Your task to perform on an android device: toggle airplane mode Image 0: 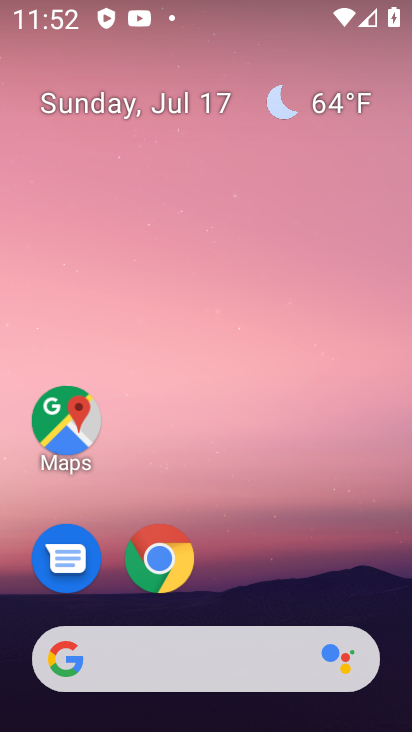
Step 0: drag from (365, 592) to (387, 189)
Your task to perform on an android device: toggle airplane mode Image 1: 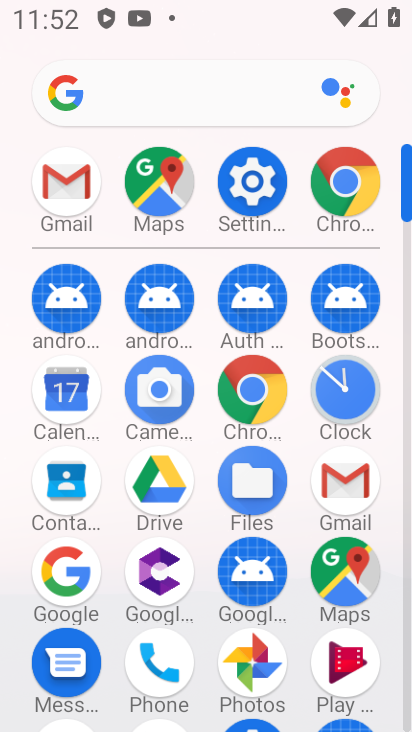
Step 1: click (264, 201)
Your task to perform on an android device: toggle airplane mode Image 2: 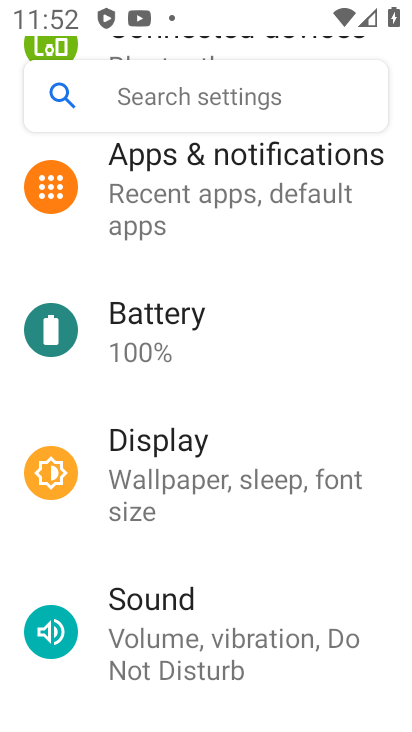
Step 2: drag from (339, 379) to (341, 310)
Your task to perform on an android device: toggle airplane mode Image 3: 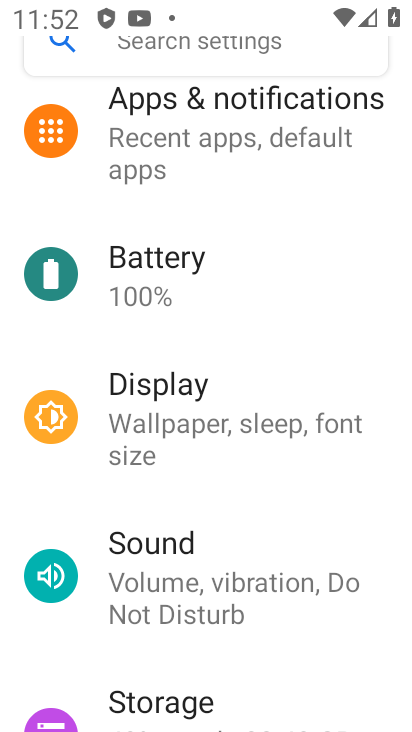
Step 3: click (344, 413)
Your task to perform on an android device: toggle airplane mode Image 4: 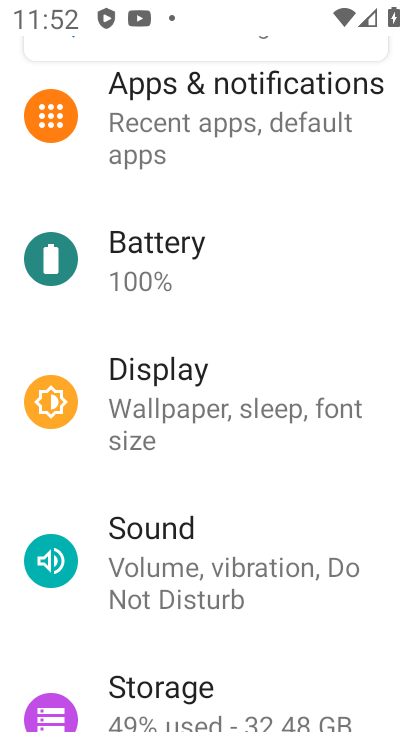
Step 4: drag from (336, 422) to (338, 371)
Your task to perform on an android device: toggle airplane mode Image 5: 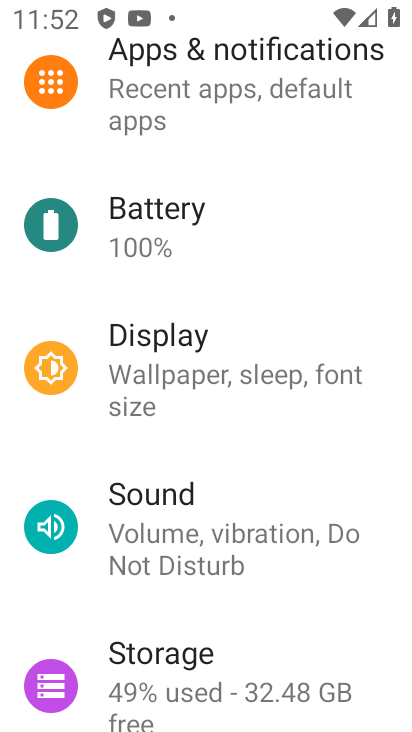
Step 5: drag from (345, 474) to (341, 412)
Your task to perform on an android device: toggle airplane mode Image 6: 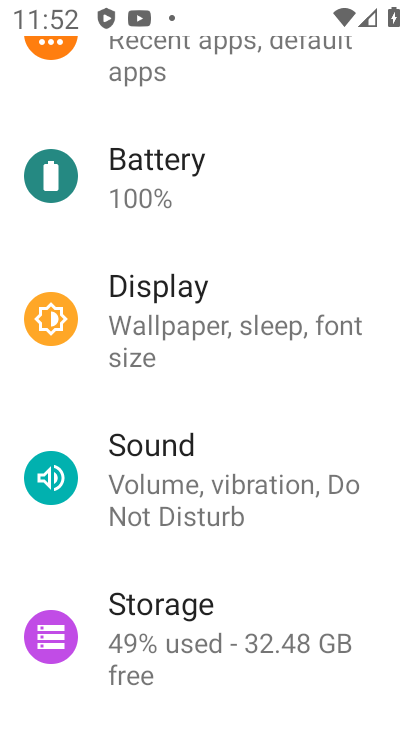
Step 6: drag from (348, 495) to (350, 437)
Your task to perform on an android device: toggle airplane mode Image 7: 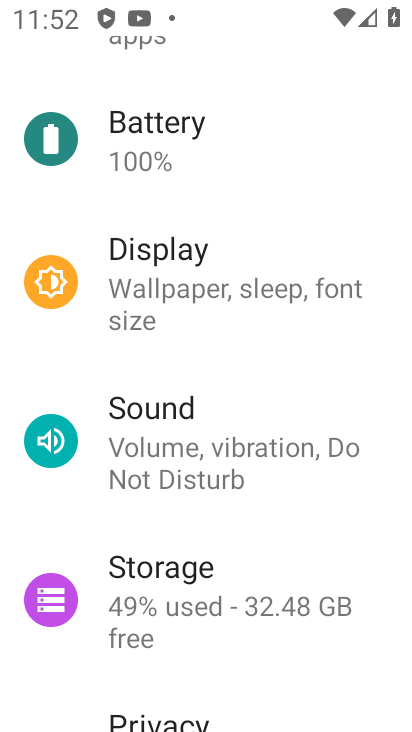
Step 7: drag from (351, 517) to (354, 450)
Your task to perform on an android device: toggle airplane mode Image 8: 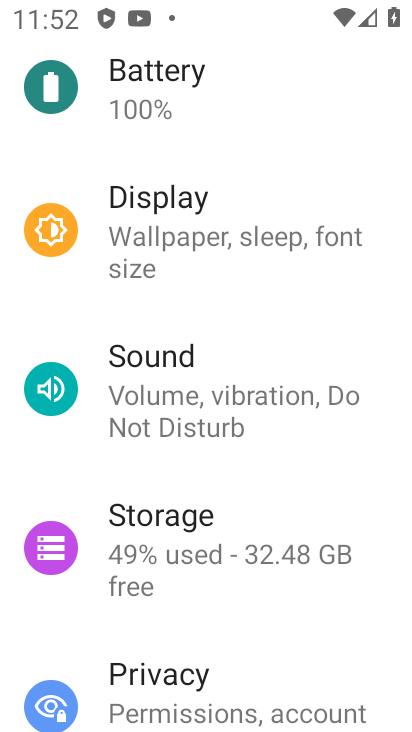
Step 8: drag from (345, 507) to (348, 437)
Your task to perform on an android device: toggle airplane mode Image 9: 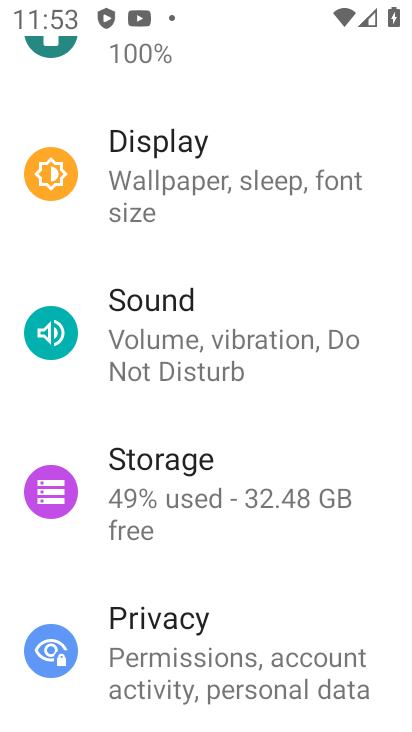
Step 9: drag from (343, 517) to (344, 434)
Your task to perform on an android device: toggle airplane mode Image 10: 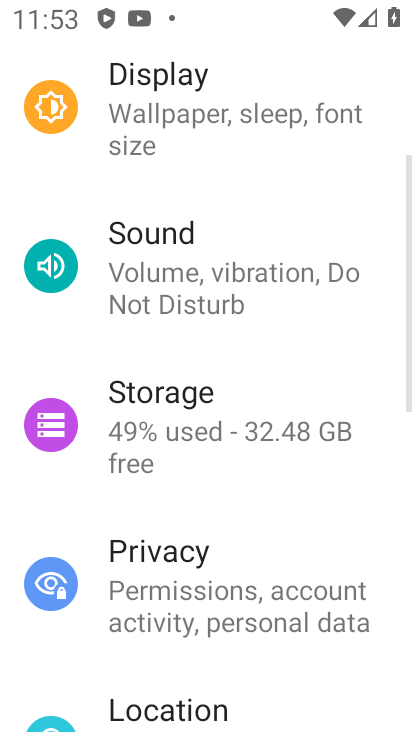
Step 10: drag from (345, 377) to (346, 460)
Your task to perform on an android device: toggle airplane mode Image 11: 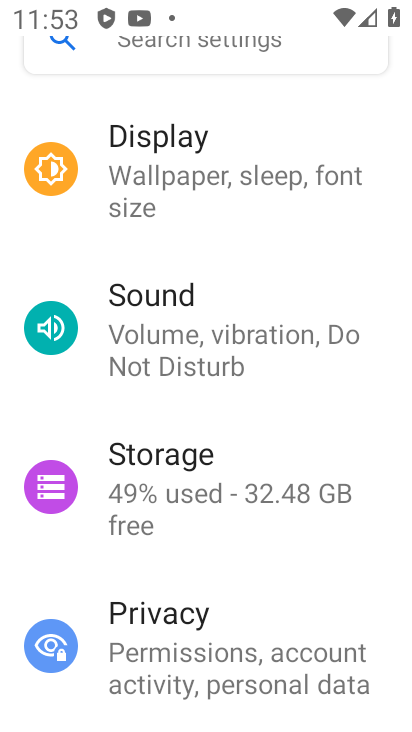
Step 11: click (344, 336)
Your task to perform on an android device: toggle airplane mode Image 12: 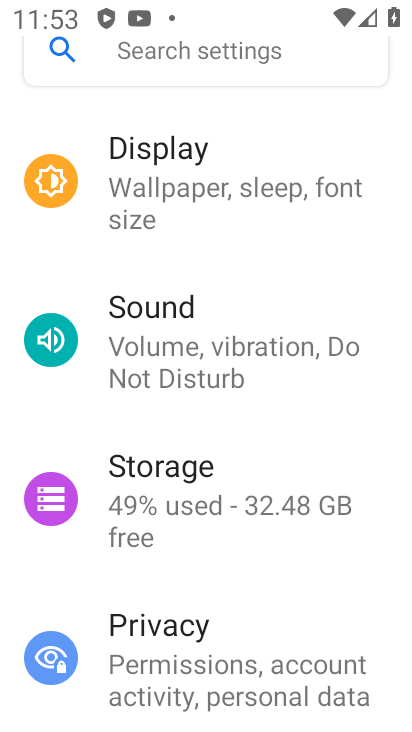
Step 12: drag from (350, 338) to (352, 404)
Your task to perform on an android device: toggle airplane mode Image 13: 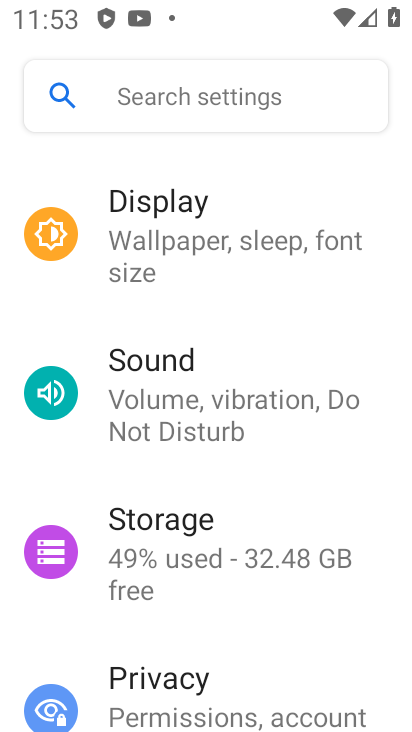
Step 13: drag from (361, 284) to (365, 367)
Your task to perform on an android device: toggle airplane mode Image 14: 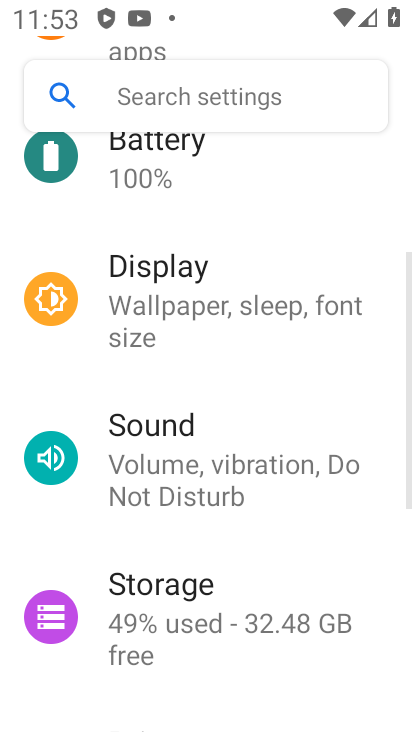
Step 14: drag from (365, 234) to (363, 336)
Your task to perform on an android device: toggle airplane mode Image 15: 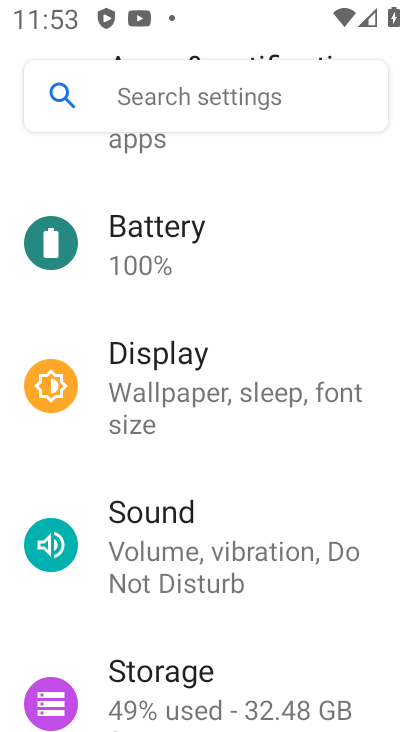
Step 15: click (366, 298)
Your task to perform on an android device: toggle airplane mode Image 16: 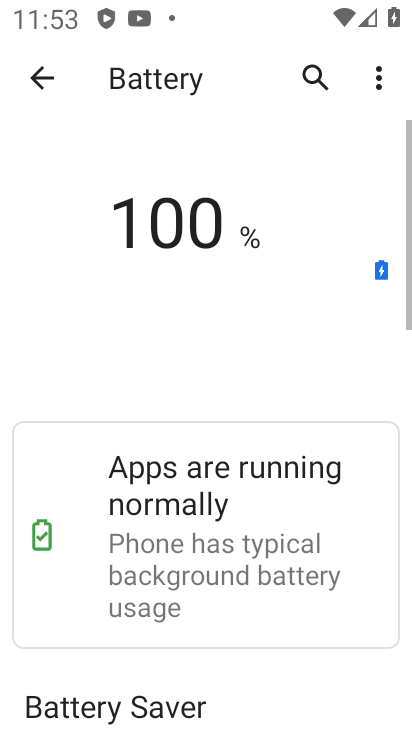
Step 16: drag from (368, 228) to (369, 302)
Your task to perform on an android device: toggle airplane mode Image 17: 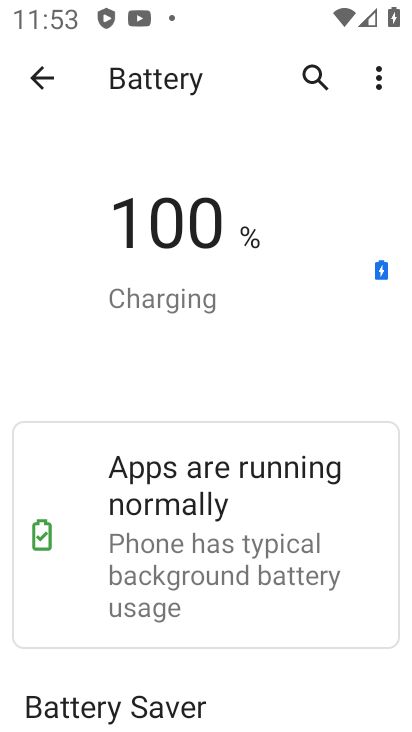
Step 17: click (36, 67)
Your task to perform on an android device: toggle airplane mode Image 18: 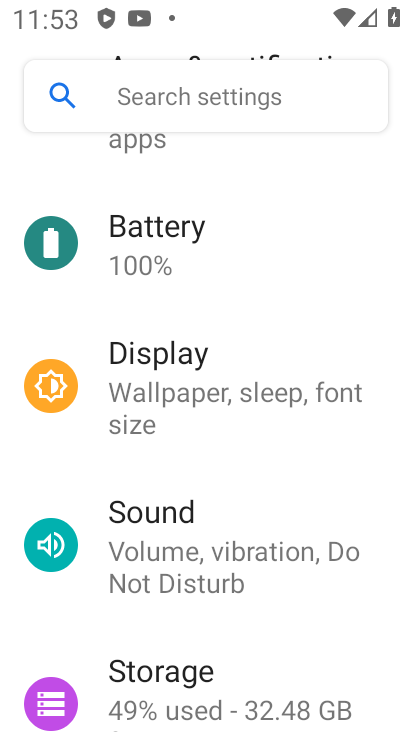
Step 18: drag from (343, 209) to (344, 314)
Your task to perform on an android device: toggle airplane mode Image 19: 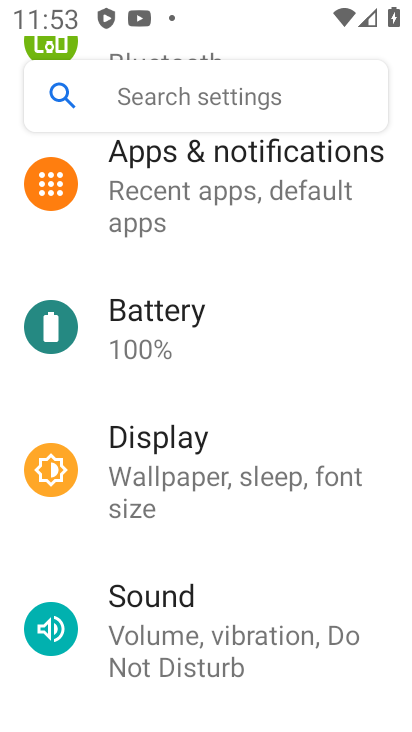
Step 19: drag from (345, 189) to (344, 299)
Your task to perform on an android device: toggle airplane mode Image 20: 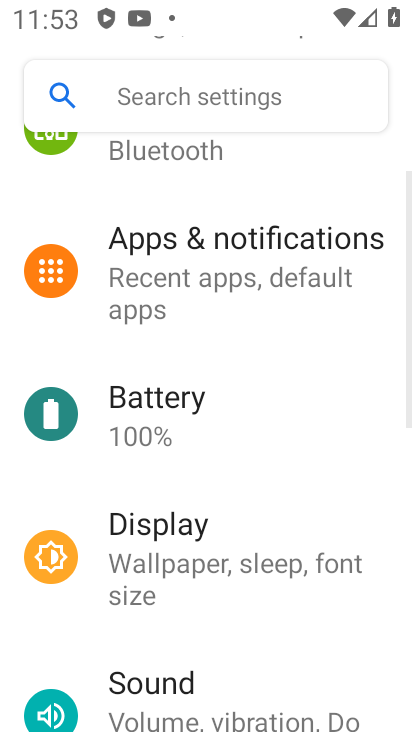
Step 20: drag from (344, 211) to (345, 321)
Your task to perform on an android device: toggle airplane mode Image 21: 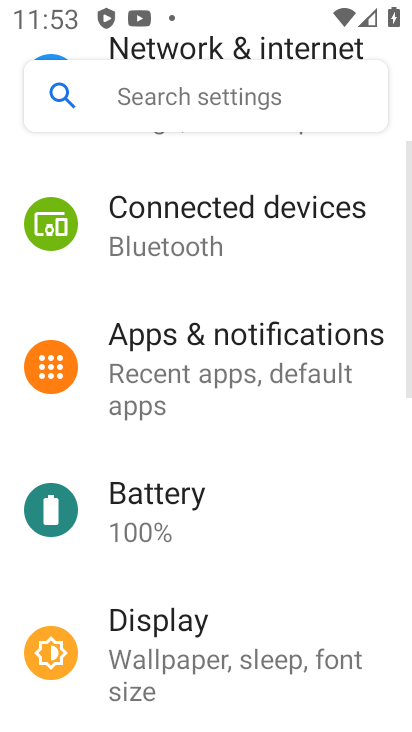
Step 21: drag from (343, 235) to (343, 315)
Your task to perform on an android device: toggle airplane mode Image 22: 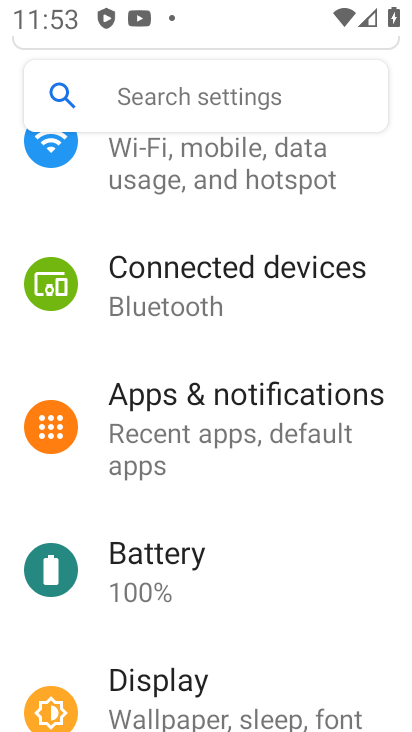
Step 22: click (343, 303)
Your task to perform on an android device: toggle airplane mode Image 23: 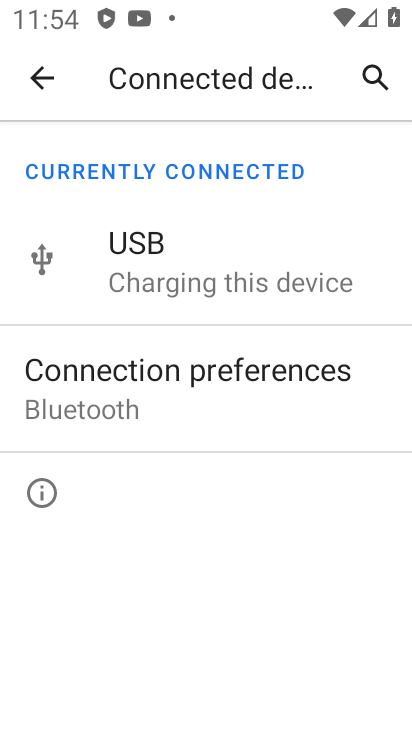
Step 23: press home button
Your task to perform on an android device: toggle airplane mode Image 24: 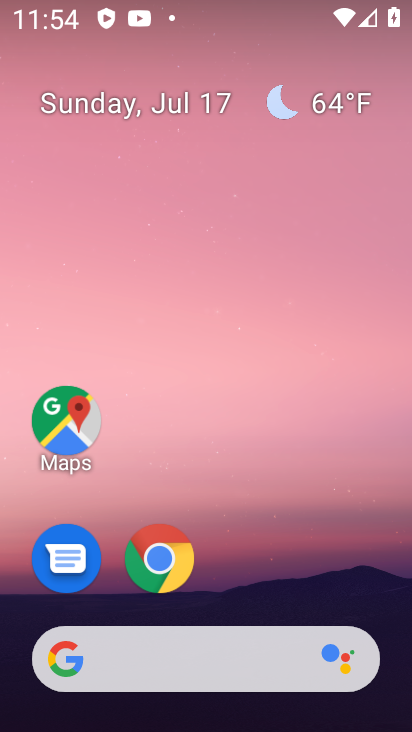
Step 24: drag from (359, 550) to (357, 97)
Your task to perform on an android device: toggle airplane mode Image 25: 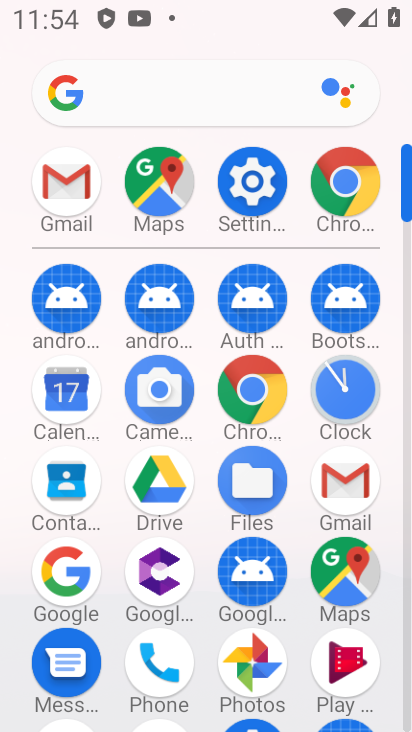
Step 25: click (245, 189)
Your task to perform on an android device: toggle airplane mode Image 26: 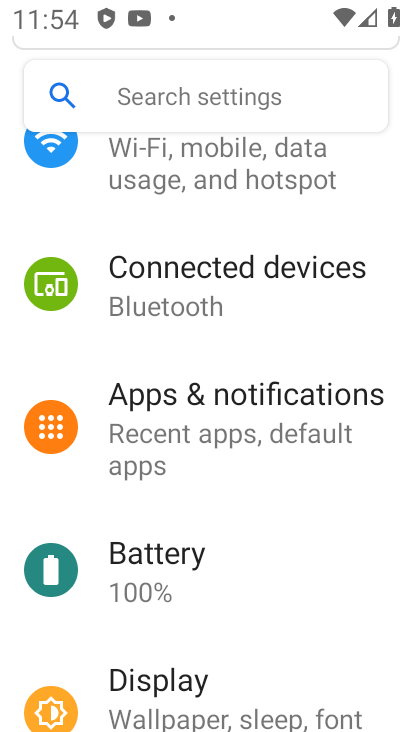
Step 26: drag from (374, 254) to (385, 359)
Your task to perform on an android device: toggle airplane mode Image 27: 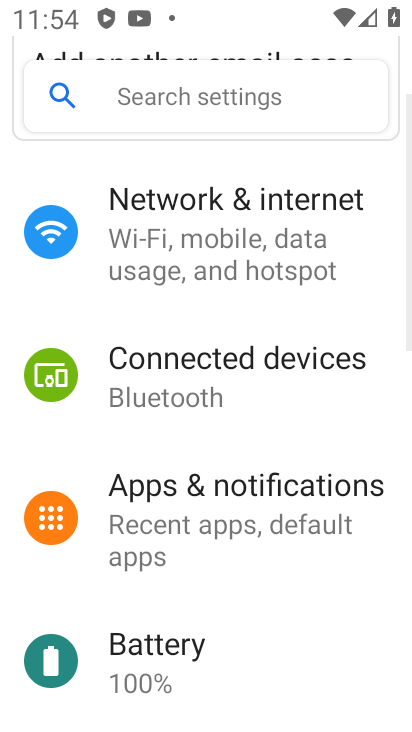
Step 27: drag from (379, 265) to (381, 320)
Your task to perform on an android device: toggle airplane mode Image 28: 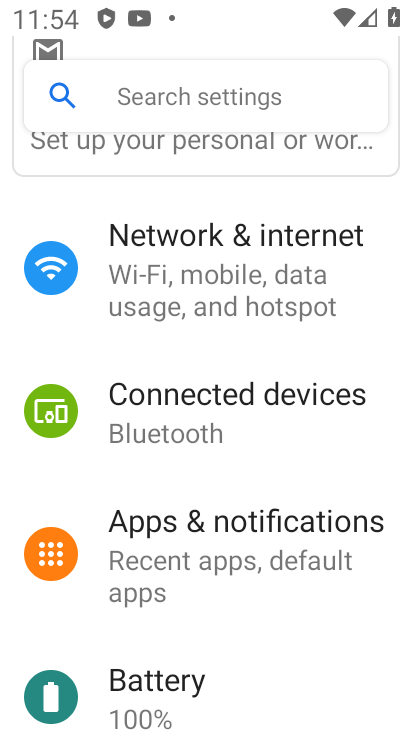
Step 28: drag from (338, 563) to (347, 507)
Your task to perform on an android device: toggle airplane mode Image 29: 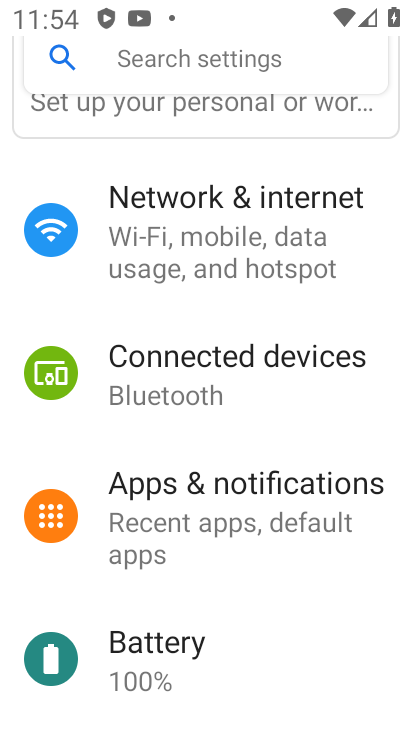
Step 29: drag from (363, 271) to (363, 414)
Your task to perform on an android device: toggle airplane mode Image 30: 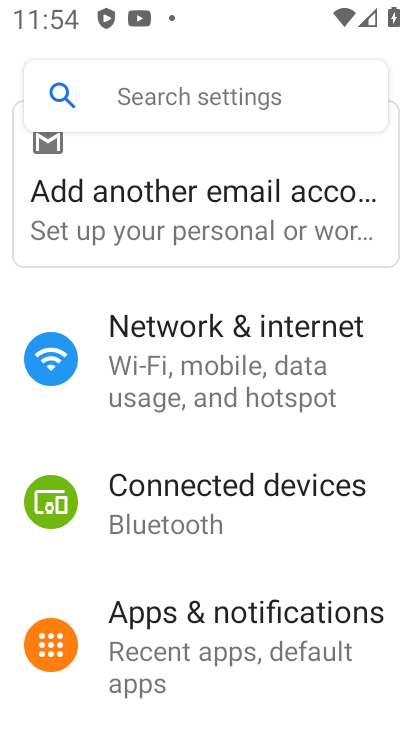
Step 30: click (303, 334)
Your task to perform on an android device: toggle airplane mode Image 31: 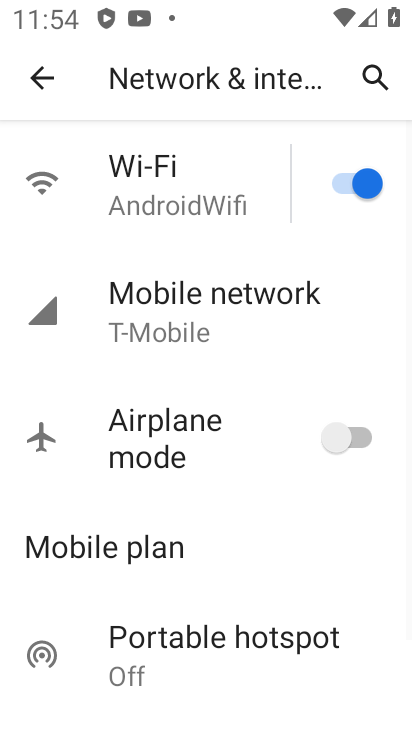
Step 31: click (332, 446)
Your task to perform on an android device: toggle airplane mode Image 32: 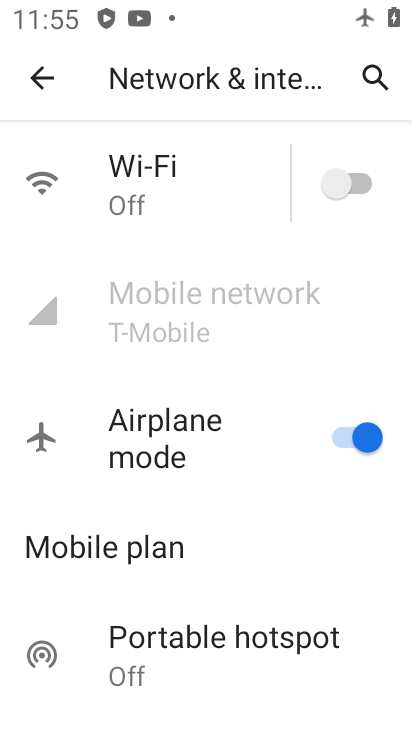
Step 32: task complete